Your task to perform on an android device: snooze an email in the gmail app Image 0: 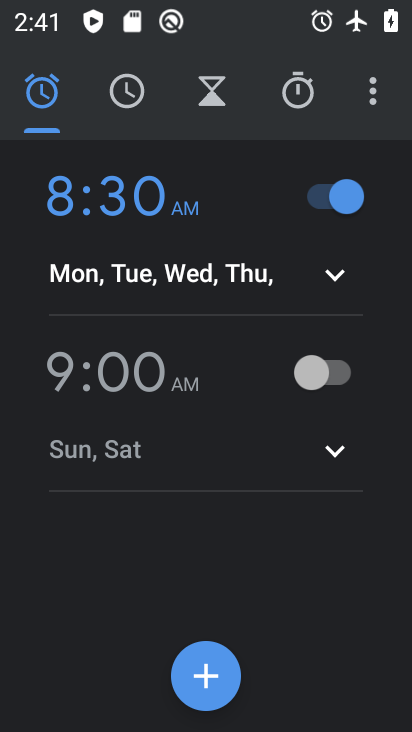
Step 0: press home button
Your task to perform on an android device: snooze an email in the gmail app Image 1: 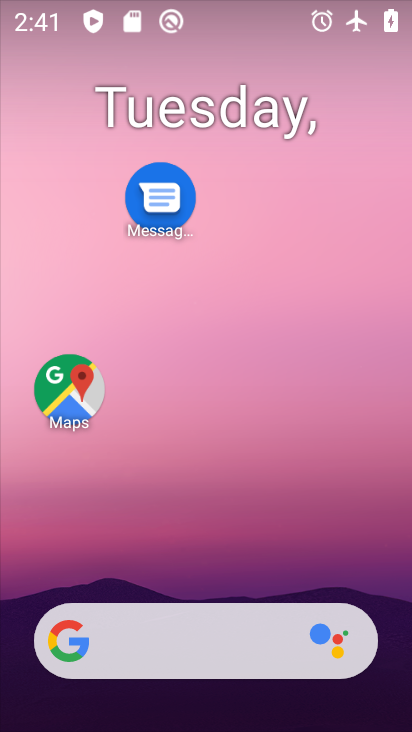
Step 1: drag from (223, 557) to (263, 157)
Your task to perform on an android device: snooze an email in the gmail app Image 2: 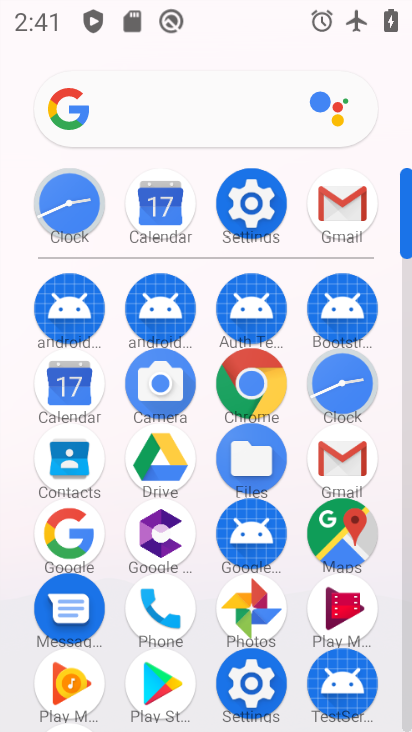
Step 2: click (338, 183)
Your task to perform on an android device: snooze an email in the gmail app Image 3: 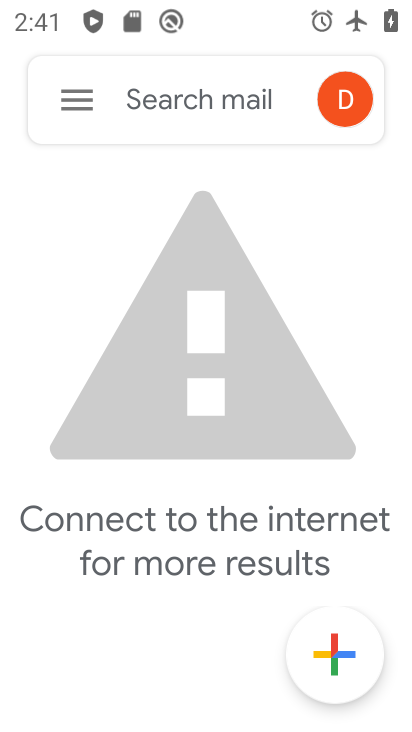
Step 3: click (57, 105)
Your task to perform on an android device: snooze an email in the gmail app Image 4: 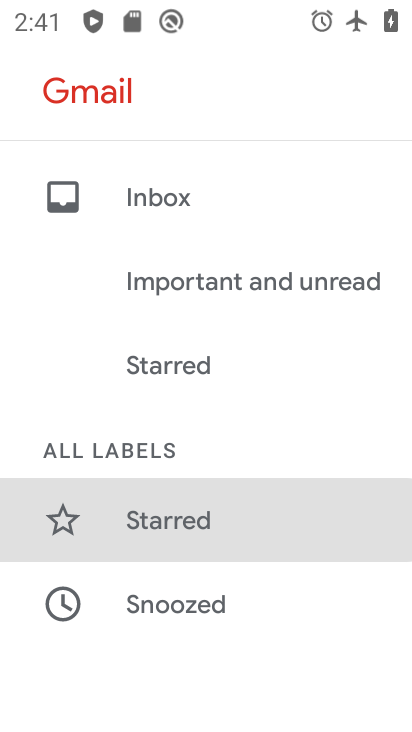
Step 4: drag from (207, 609) to (286, 274)
Your task to perform on an android device: snooze an email in the gmail app Image 5: 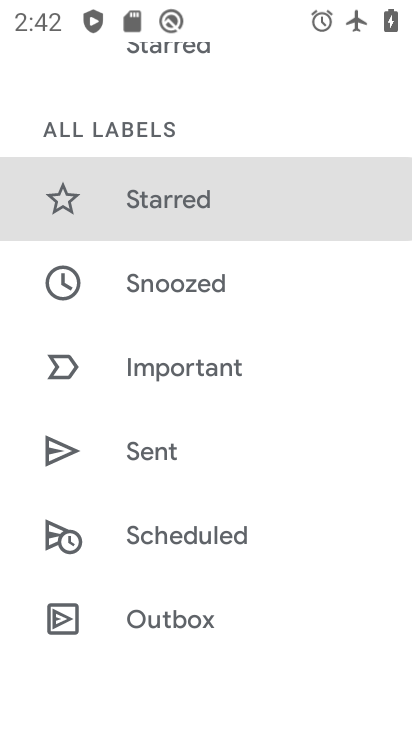
Step 5: drag from (208, 522) to (273, 230)
Your task to perform on an android device: snooze an email in the gmail app Image 6: 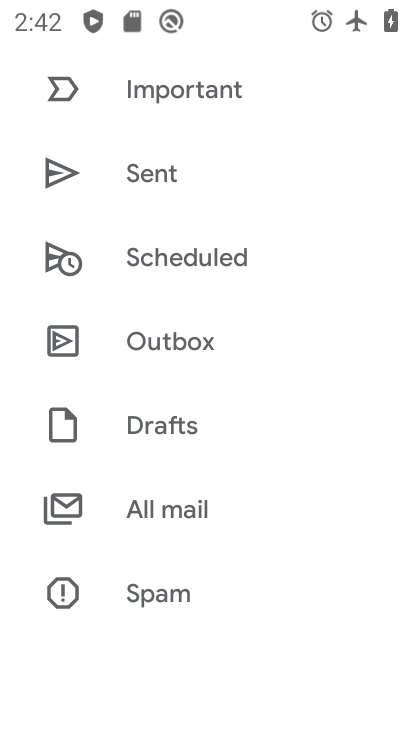
Step 6: click (203, 505)
Your task to perform on an android device: snooze an email in the gmail app Image 7: 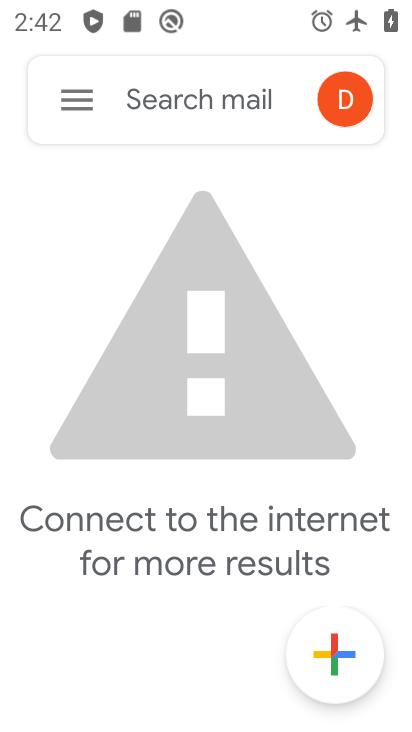
Step 7: task complete